Your task to perform on an android device: open the mobile data screen to see how much data has been used Image 0: 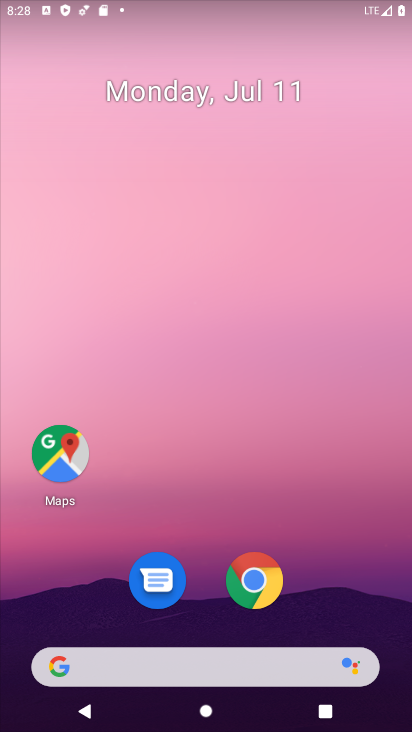
Step 0: drag from (354, 265) to (357, 4)
Your task to perform on an android device: open the mobile data screen to see how much data has been used Image 1: 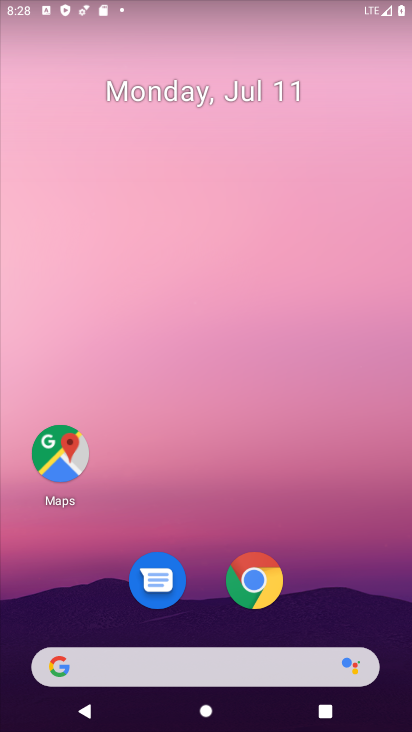
Step 1: drag from (322, 584) to (300, 6)
Your task to perform on an android device: open the mobile data screen to see how much data has been used Image 2: 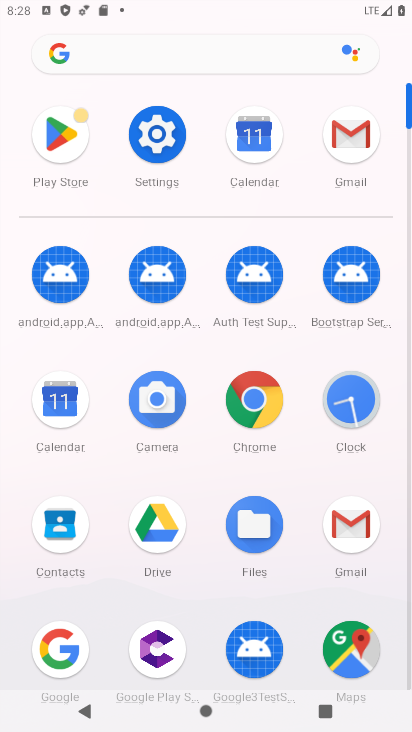
Step 2: click (156, 138)
Your task to perform on an android device: open the mobile data screen to see how much data has been used Image 3: 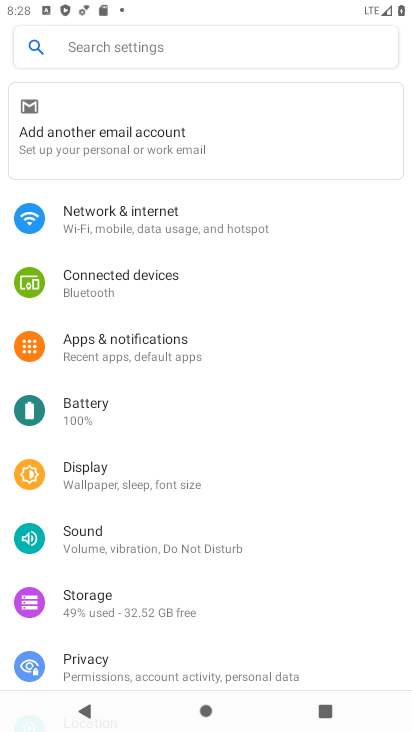
Step 3: click (179, 228)
Your task to perform on an android device: open the mobile data screen to see how much data has been used Image 4: 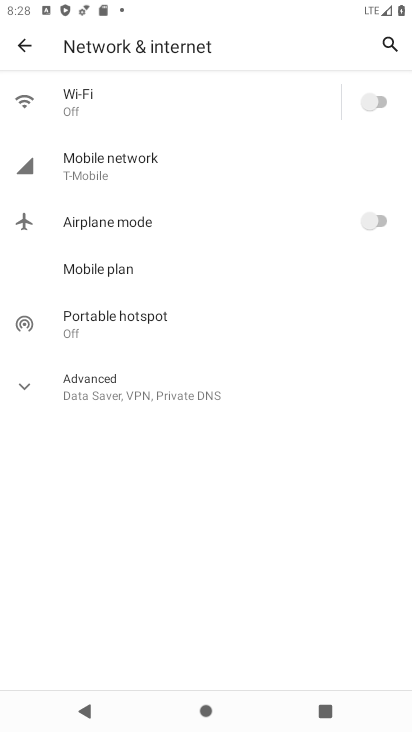
Step 4: click (151, 158)
Your task to perform on an android device: open the mobile data screen to see how much data has been used Image 5: 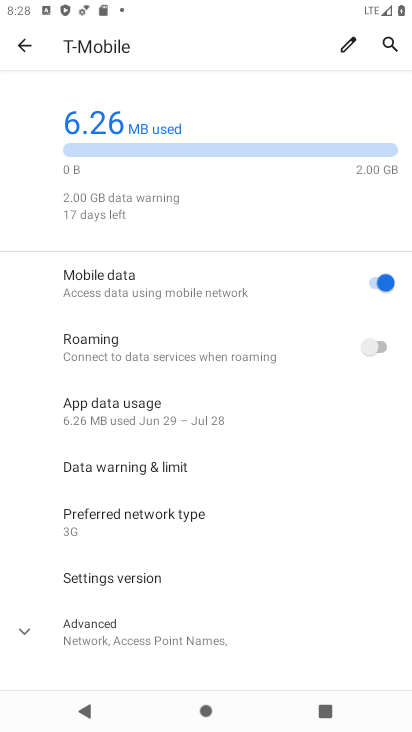
Step 5: task complete